Your task to perform on an android device: Open CNN.com Image 0: 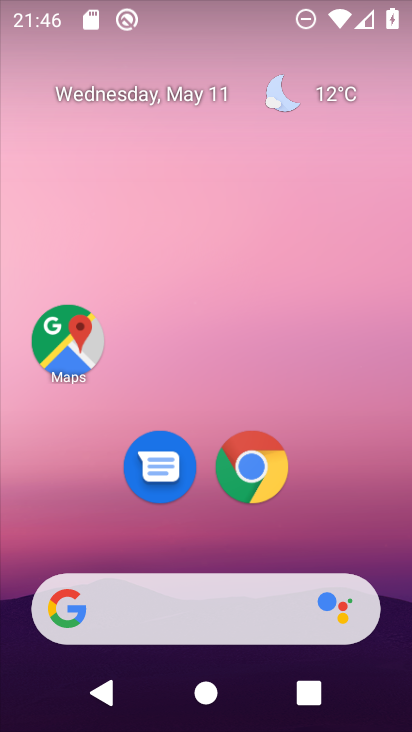
Step 0: drag from (214, 533) to (194, 3)
Your task to perform on an android device: Open CNN.com Image 1: 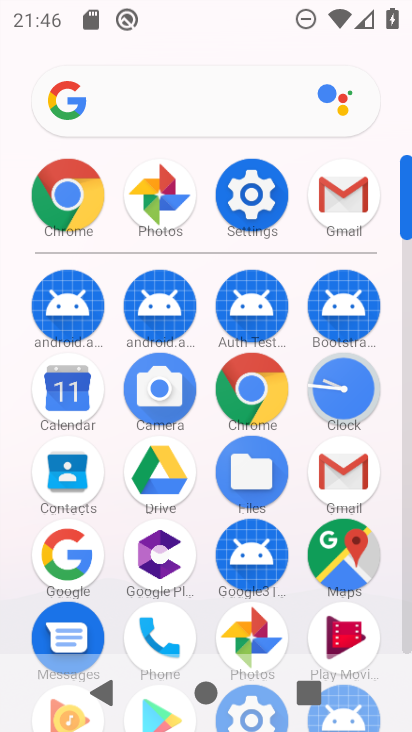
Step 1: click (249, 377)
Your task to perform on an android device: Open CNN.com Image 2: 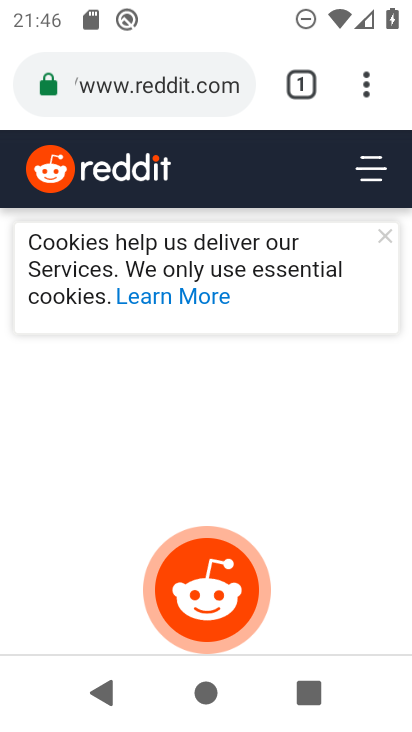
Step 2: click (309, 77)
Your task to perform on an android device: Open CNN.com Image 3: 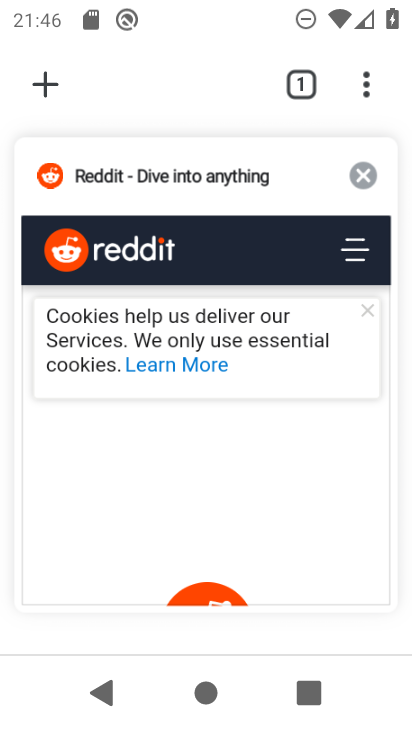
Step 3: click (366, 174)
Your task to perform on an android device: Open CNN.com Image 4: 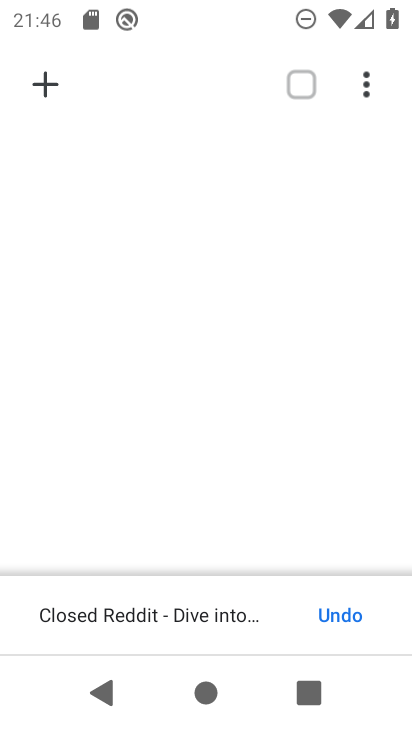
Step 4: click (54, 89)
Your task to perform on an android device: Open CNN.com Image 5: 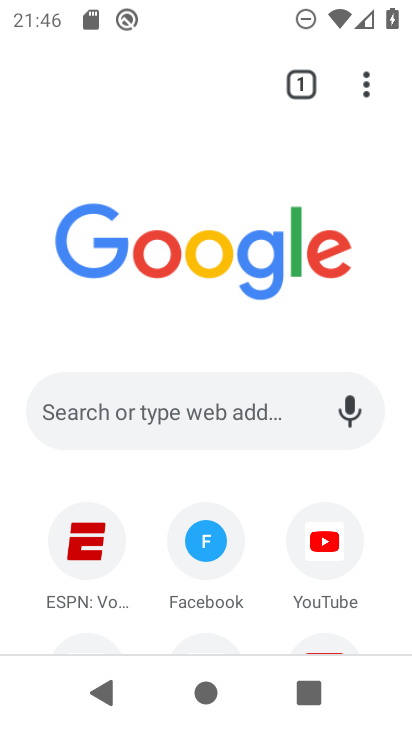
Step 5: drag from (270, 516) to (309, 105)
Your task to perform on an android device: Open CNN.com Image 6: 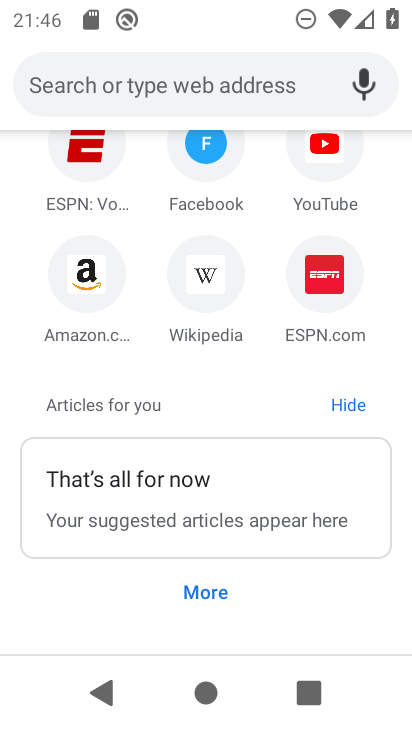
Step 6: click (137, 75)
Your task to perform on an android device: Open CNN.com Image 7: 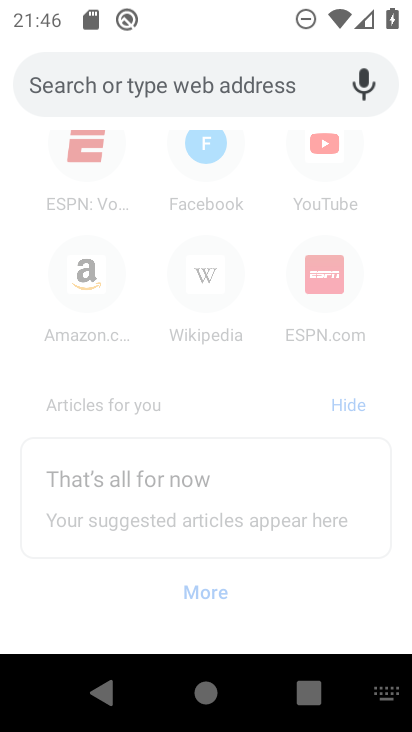
Step 7: type "cnn.com"
Your task to perform on an android device: Open CNN.com Image 8: 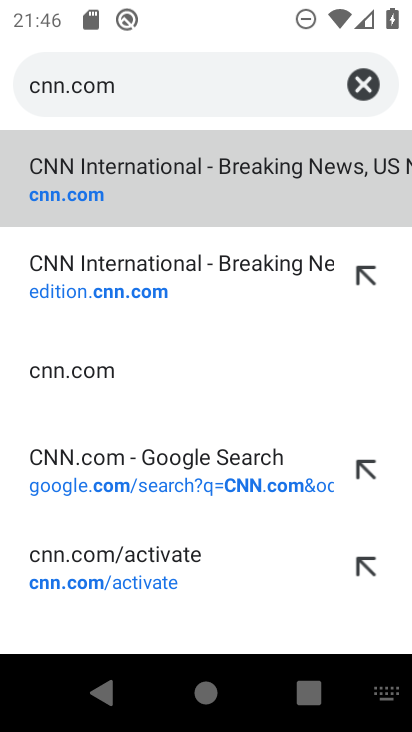
Step 8: click (158, 192)
Your task to perform on an android device: Open CNN.com Image 9: 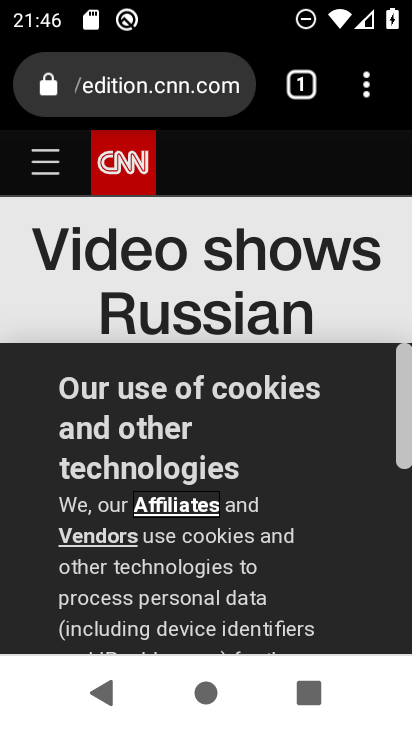
Step 9: drag from (196, 617) to (217, 145)
Your task to perform on an android device: Open CNN.com Image 10: 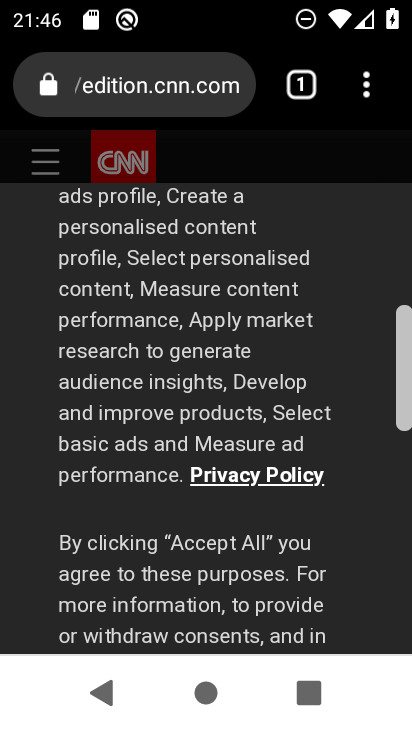
Step 10: drag from (230, 626) to (275, 98)
Your task to perform on an android device: Open CNN.com Image 11: 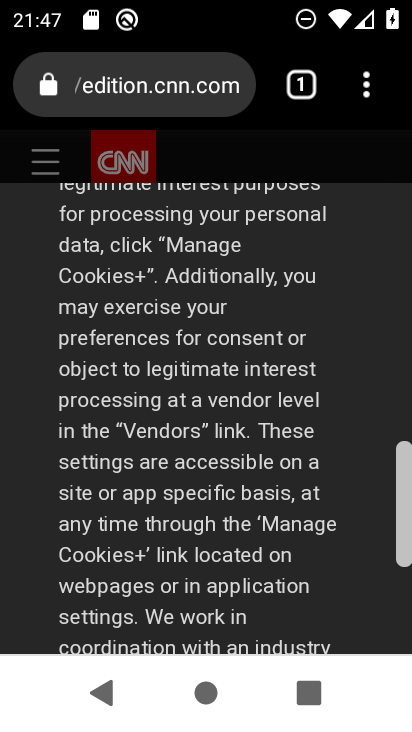
Step 11: drag from (210, 613) to (241, 195)
Your task to perform on an android device: Open CNN.com Image 12: 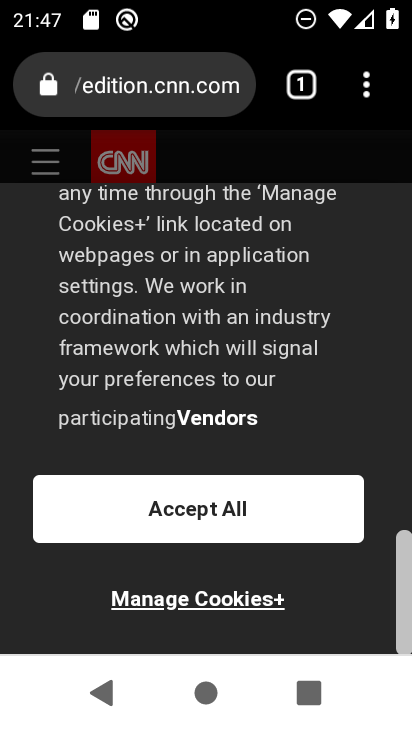
Step 12: click (203, 504)
Your task to perform on an android device: Open CNN.com Image 13: 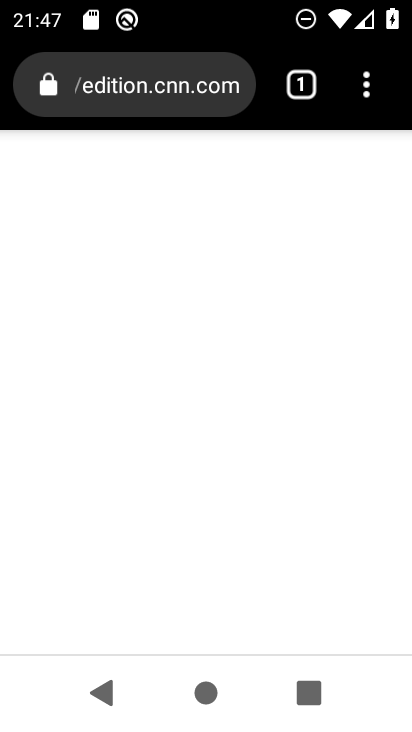
Step 13: task complete